Your task to perform on an android device: Open Maps and search for coffee Image 0: 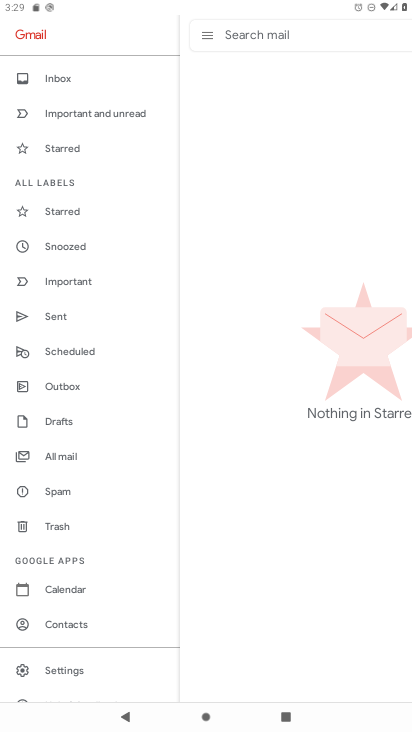
Step 0: press home button
Your task to perform on an android device: Open Maps and search for coffee Image 1: 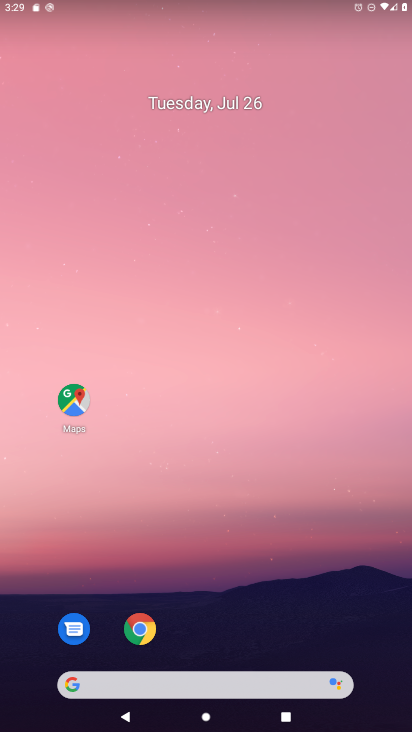
Step 1: click (71, 408)
Your task to perform on an android device: Open Maps and search for coffee Image 2: 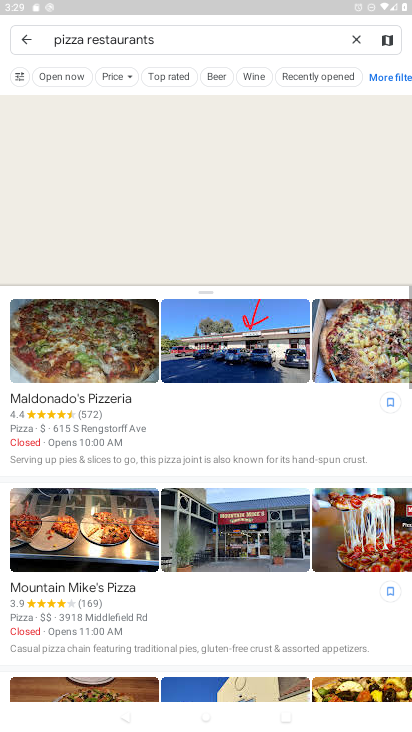
Step 2: click (357, 43)
Your task to perform on an android device: Open Maps and search for coffee Image 3: 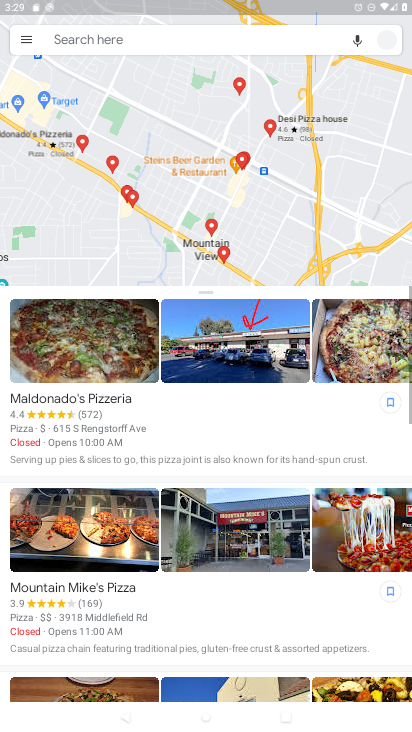
Step 3: click (170, 47)
Your task to perform on an android device: Open Maps and search for coffee Image 4: 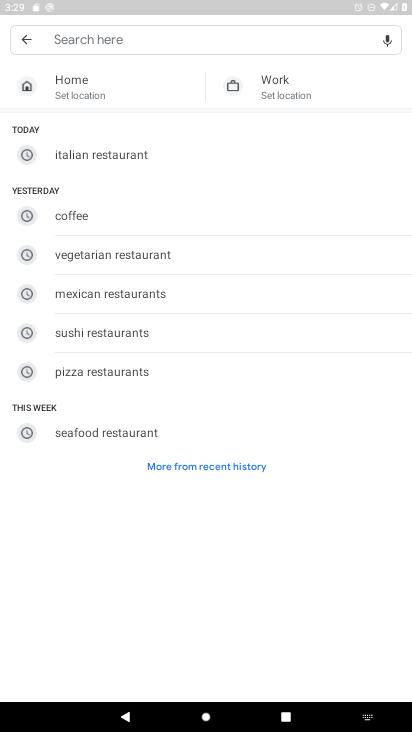
Step 4: click (74, 211)
Your task to perform on an android device: Open Maps and search for coffee Image 5: 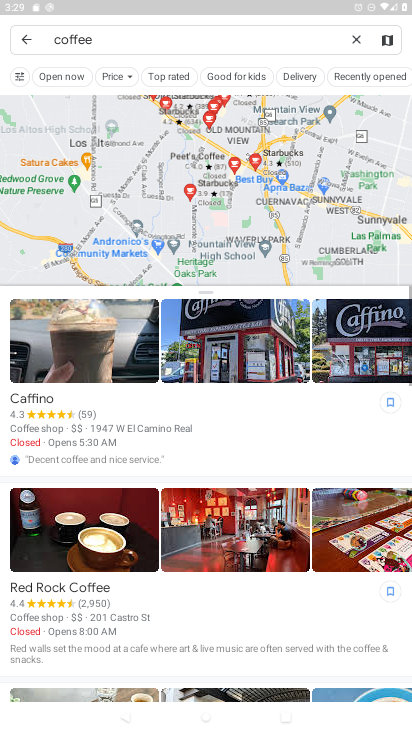
Step 5: task complete